Your task to perform on an android device: open the mobile data screen to see how much data has been used Image 0: 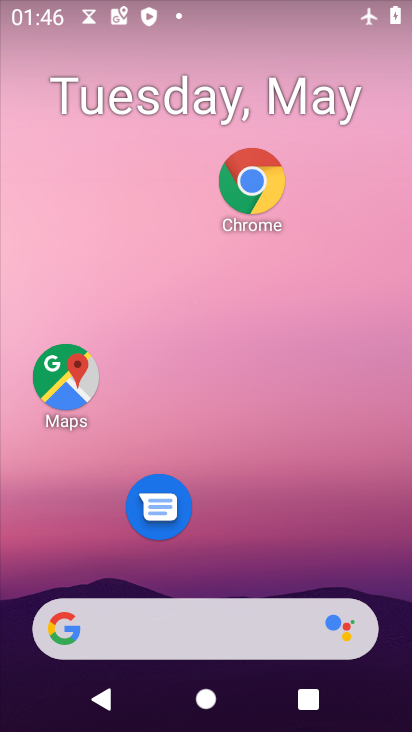
Step 0: drag from (341, 590) to (310, 369)
Your task to perform on an android device: open the mobile data screen to see how much data has been used Image 1: 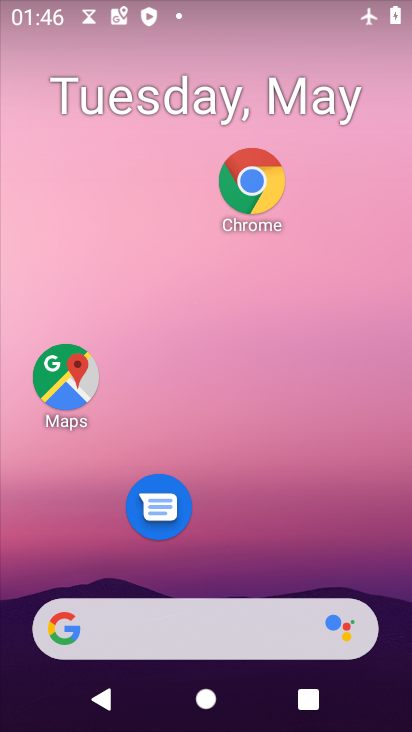
Step 1: drag from (271, 600) to (282, 283)
Your task to perform on an android device: open the mobile data screen to see how much data has been used Image 2: 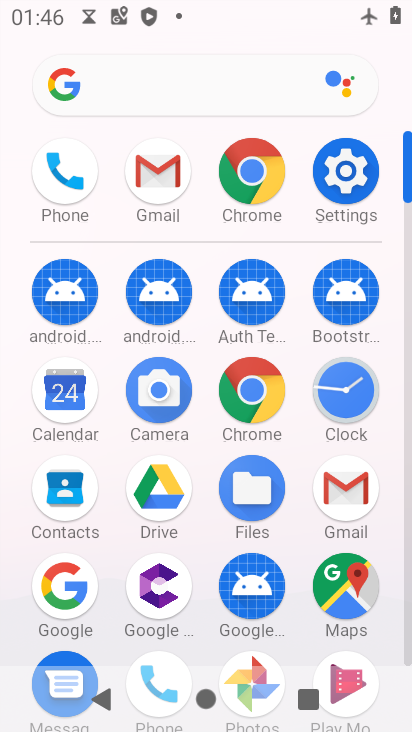
Step 2: click (331, 175)
Your task to perform on an android device: open the mobile data screen to see how much data has been used Image 3: 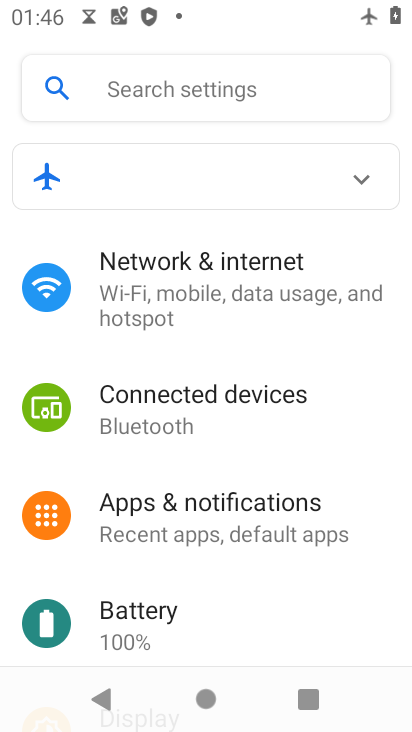
Step 3: click (195, 303)
Your task to perform on an android device: open the mobile data screen to see how much data has been used Image 4: 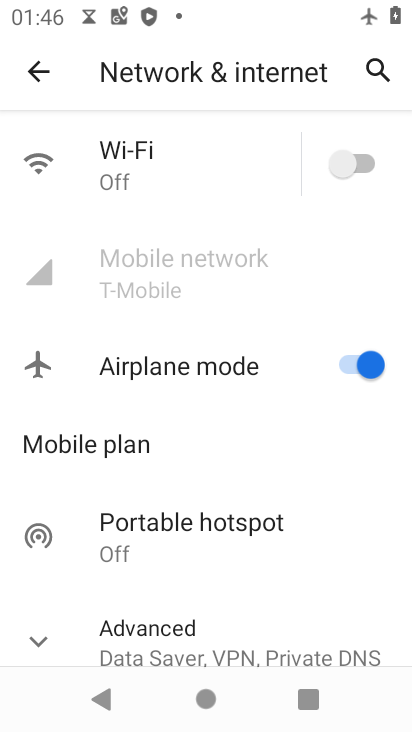
Step 4: task complete